Your task to perform on an android device: Open the web browser Image 0: 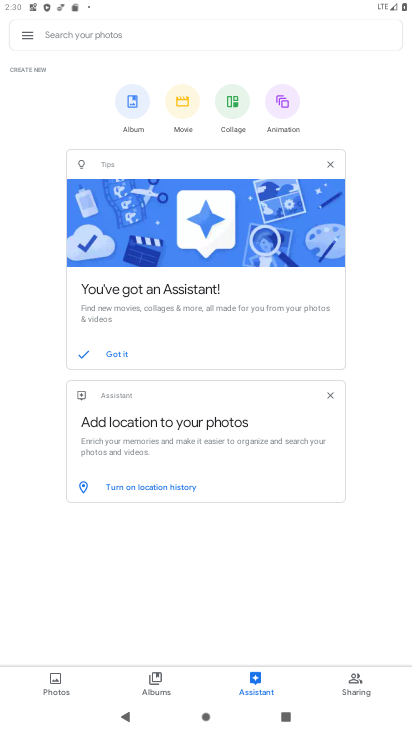
Step 0: press home button
Your task to perform on an android device: Open the web browser Image 1: 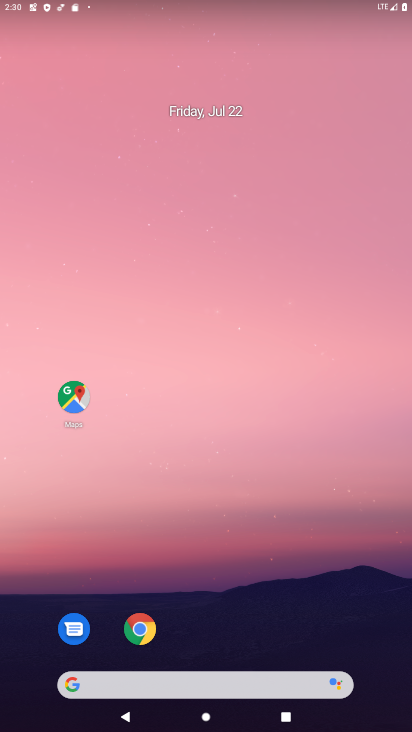
Step 1: click (143, 638)
Your task to perform on an android device: Open the web browser Image 2: 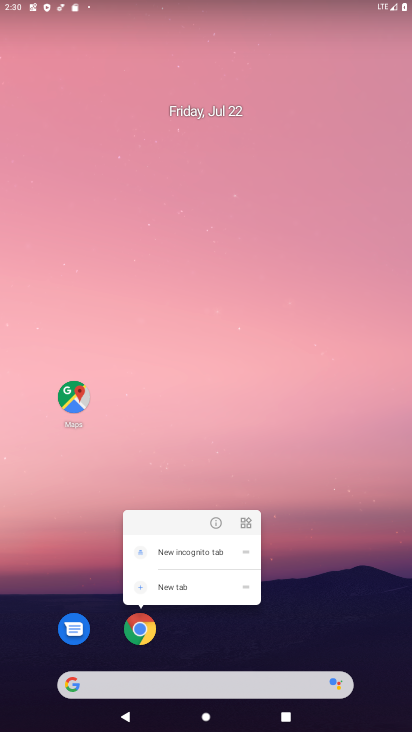
Step 2: task complete